Your task to perform on an android device: What's the weather? Image 0: 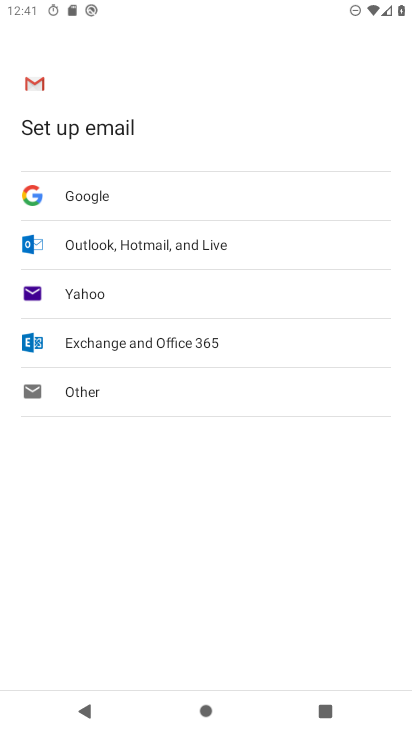
Step 0: press home button
Your task to perform on an android device: What's the weather? Image 1: 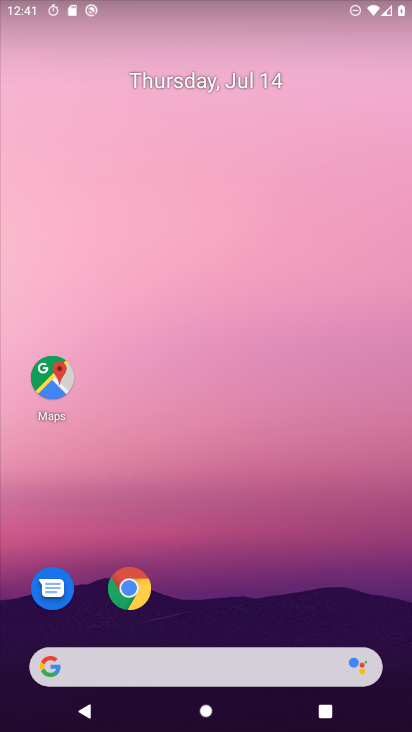
Step 1: click (127, 667)
Your task to perform on an android device: What's the weather? Image 2: 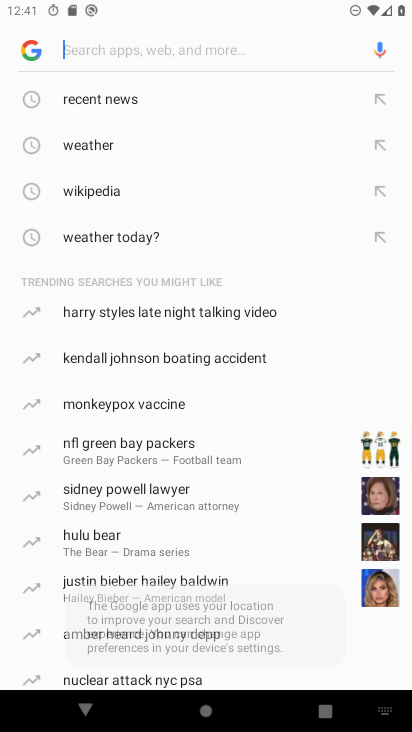
Step 2: click (98, 141)
Your task to perform on an android device: What's the weather? Image 3: 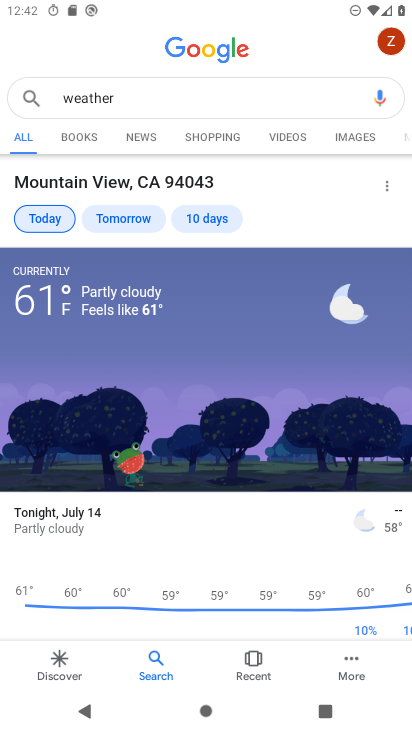
Step 3: task complete